Your task to perform on an android device: Open the phone app and click the voicemail tab. Image 0: 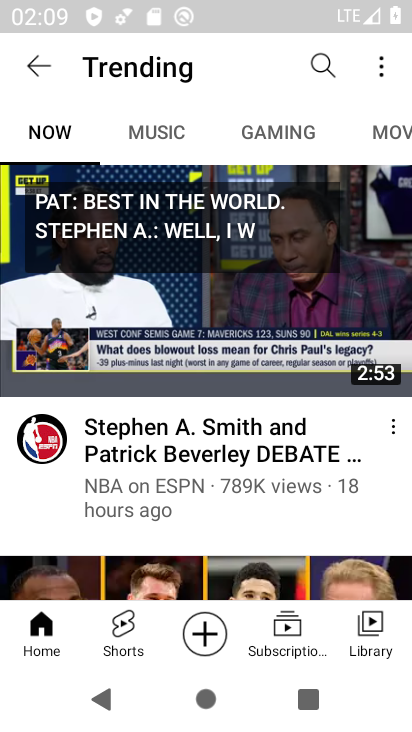
Step 0: press home button
Your task to perform on an android device: Open the phone app and click the voicemail tab. Image 1: 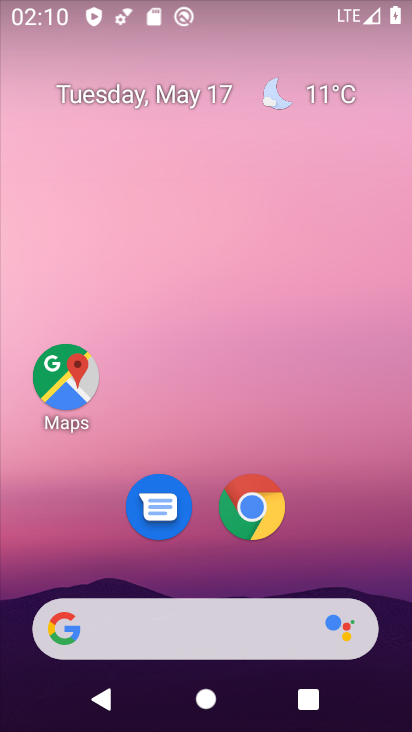
Step 1: drag from (185, 570) to (231, 152)
Your task to perform on an android device: Open the phone app and click the voicemail tab. Image 2: 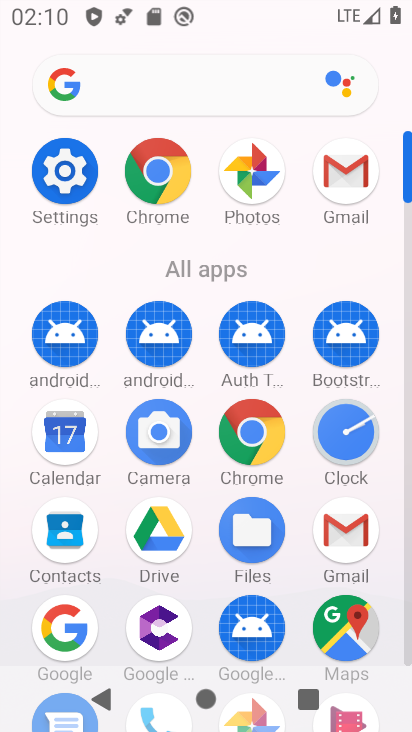
Step 2: drag from (208, 573) to (244, 58)
Your task to perform on an android device: Open the phone app and click the voicemail tab. Image 3: 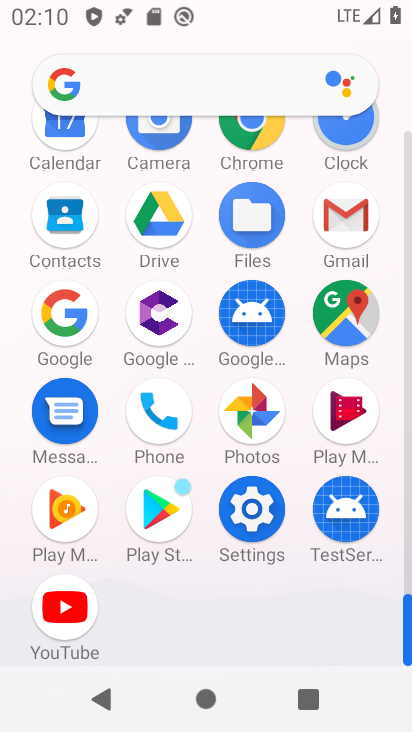
Step 3: click (166, 426)
Your task to perform on an android device: Open the phone app and click the voicemail tab. Image 4: 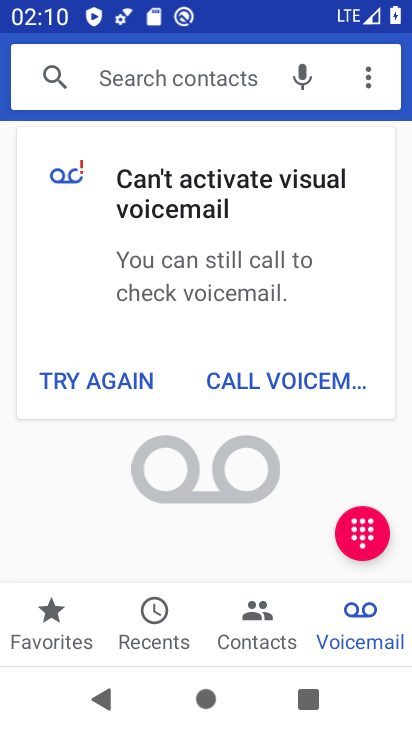
Step 4: task complete